Your task to perform on an android device: Open ESPN.com Image 0: 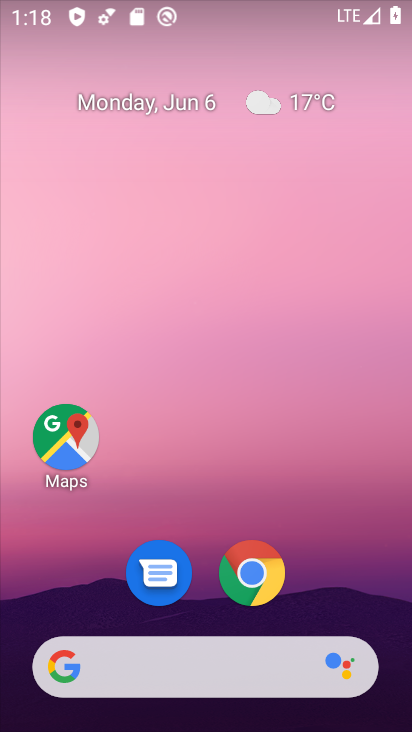
Step 0: drag from (357, 589) to (358, 117)
Your task to perform on an android device: Open ESPN.com Image 1: 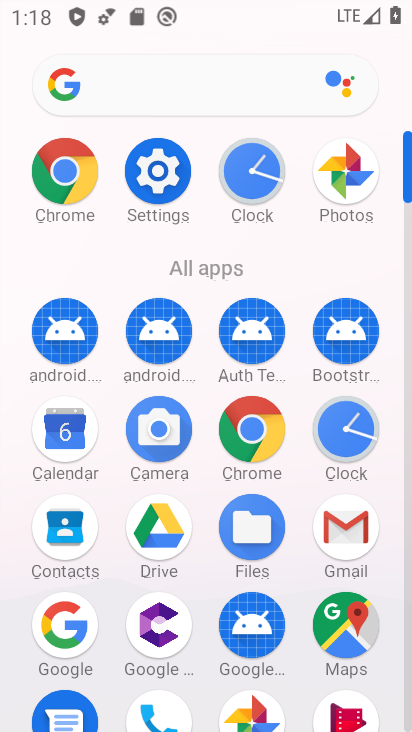
Step 1: click (260, 431)
Your task to perform on an android device: Open ESPN.com Image 2: 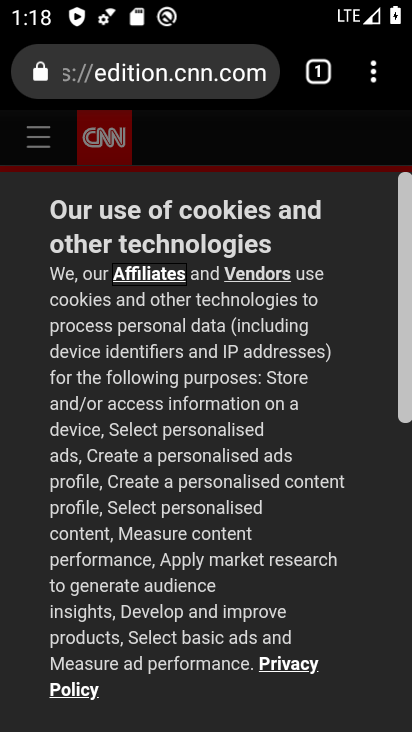
Step 2: click (186, 74)
Your task to perform on an android device: Open ESPN.com Image 3: 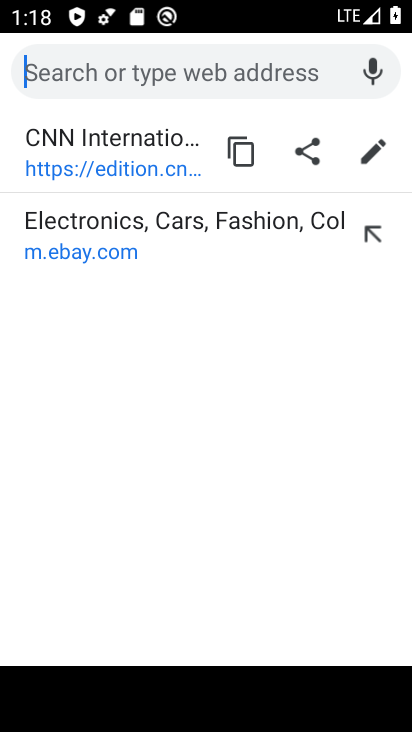
Step 3: type "espn.com"
Your task to perform on an android device: Open ESPN.com Image 4: 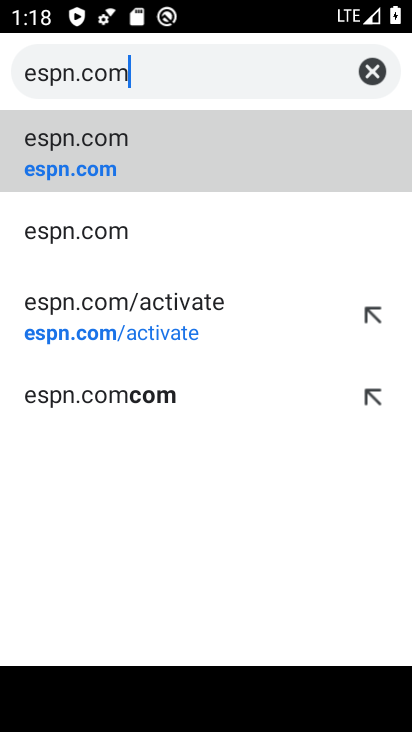
Step 4: click (155, 168)
Your task to perform on an android device: Open ESPN.com Image 5: 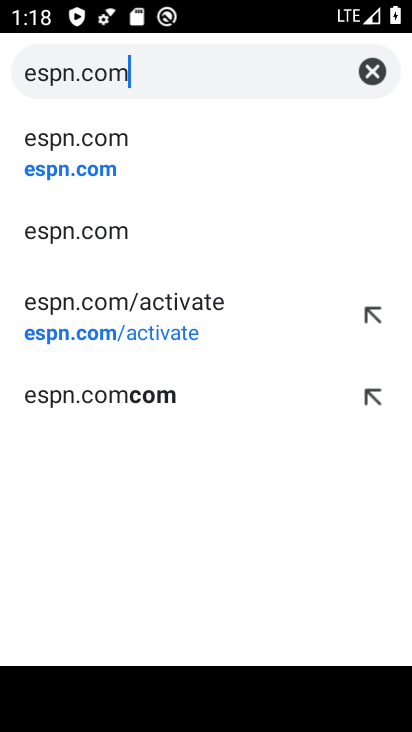
Step 5: click (73, 157)
Your task to perform on an android device: Open ESPN.com Image 6: 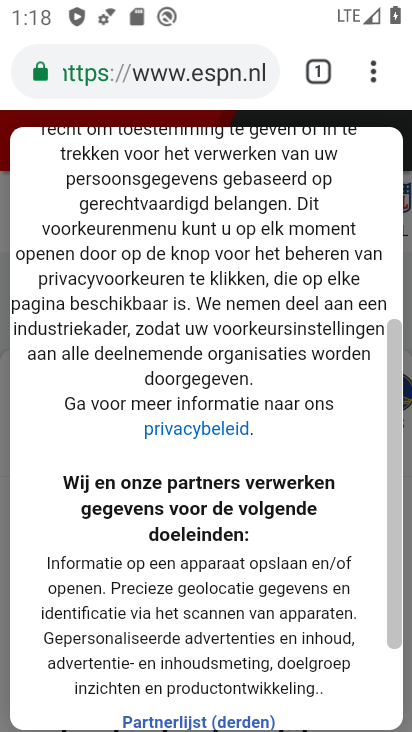
Step 6: task complete